Your task to perform on an android device: make emails show in primary in the gmail app Image 0: 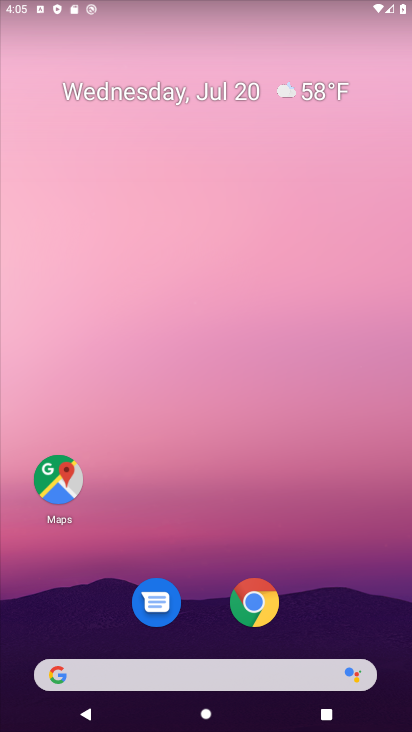
Step 0: drag from (203, 624) to (159, 206)
Your task to perform on an android device: make emails show in primary in the gmail app Image 1: 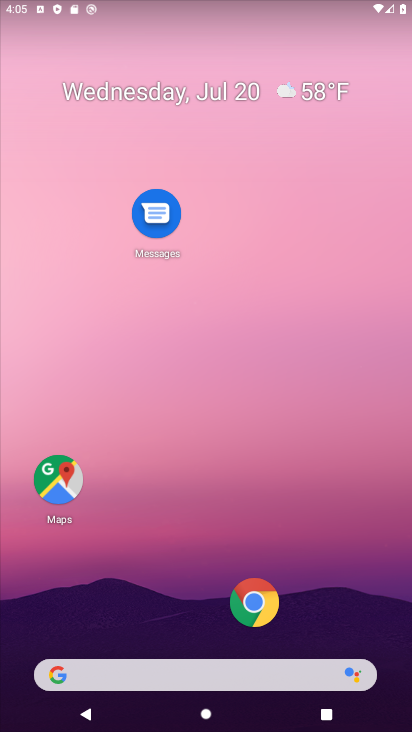
Step 1: drag from (181, 520) to (223, 128)
Your task to perform on an android device: make emails show in primary in the gmail app Image 2: 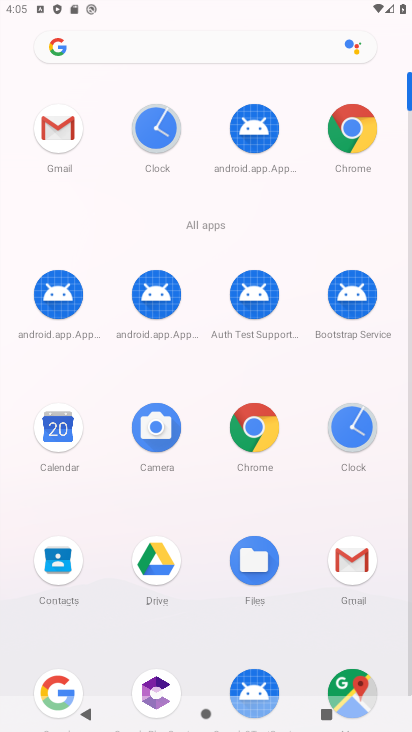
Step 2: click (61, 149)
Your task to perform on an android device: make emails show in primary in the gmail app Image 3: 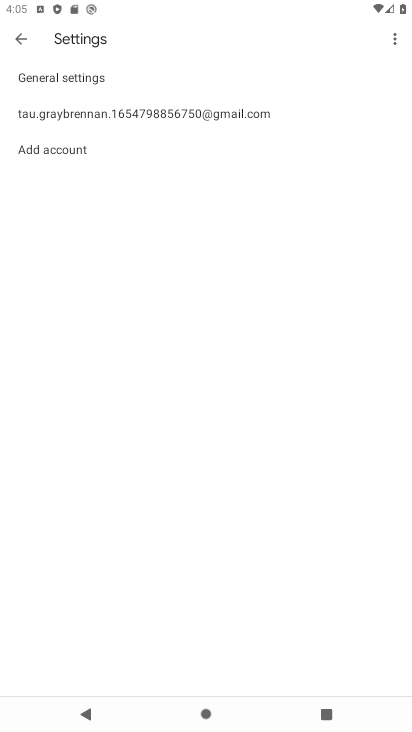
Step 3: click (82, 111)
Your task to perform on an android device: make emails show in primary in the gmail app Image 4: 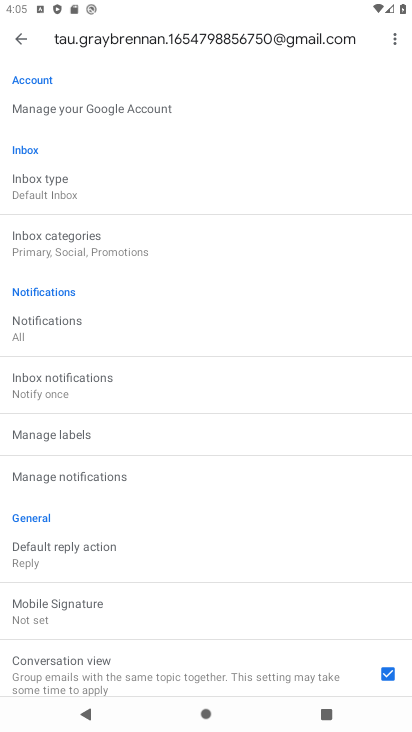
Step 4: click (60, 256)
Your task to perform on an android device: make emails show in primary in the gmail app Image 5: 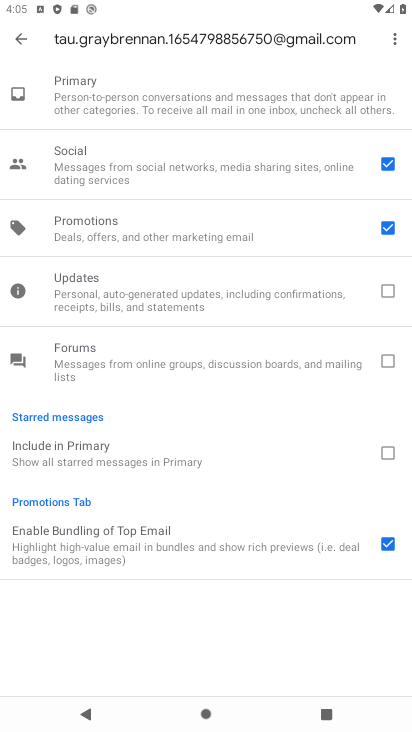
Step 5: click (390, 235)
Your task to perform on an android device: make emails show in primary in the gmail app Image 6: 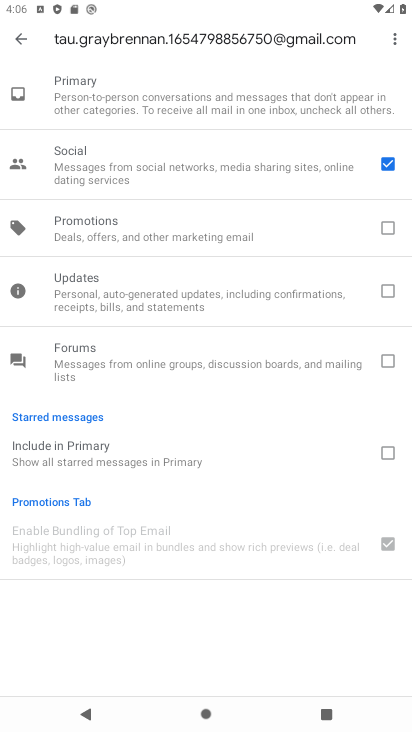
Step 6: click (385, 161)
Your task to perform on an android device: make emails show in primary in the gmail app Image 7: 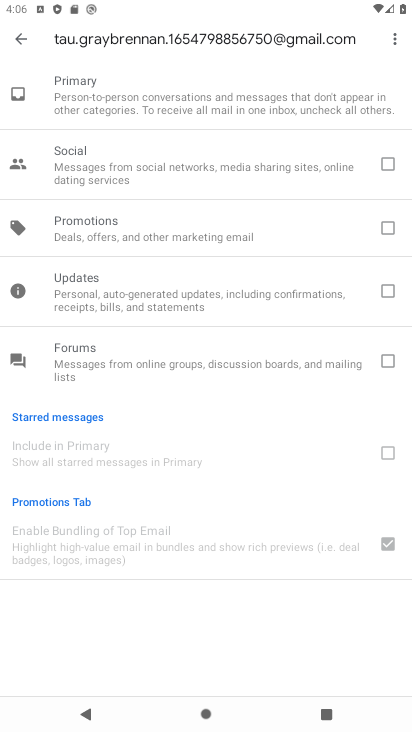
Step 7: task complete